Your task to perform on an android device: Open Google Chrome Image 0: 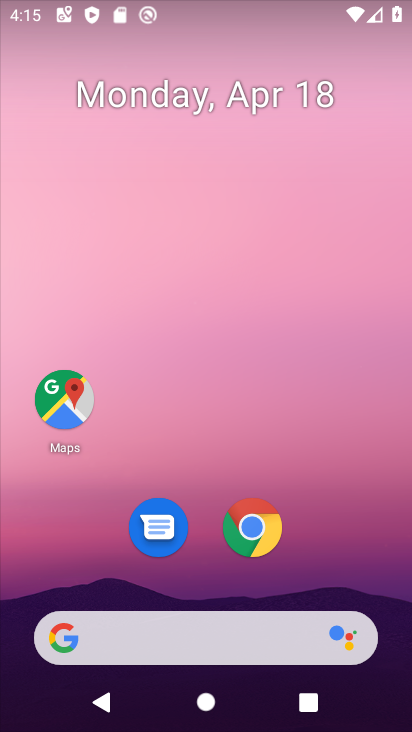
Step 0: click (253, 523)
Your task to perform on an android device: Open Google Chrome Image 1: 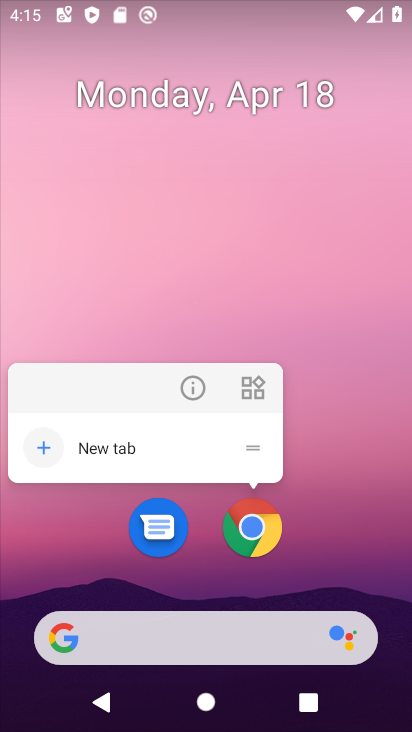
Step 1: click (248, 518)
Your task to perform on an android device: Open Google Chrome Image 2: 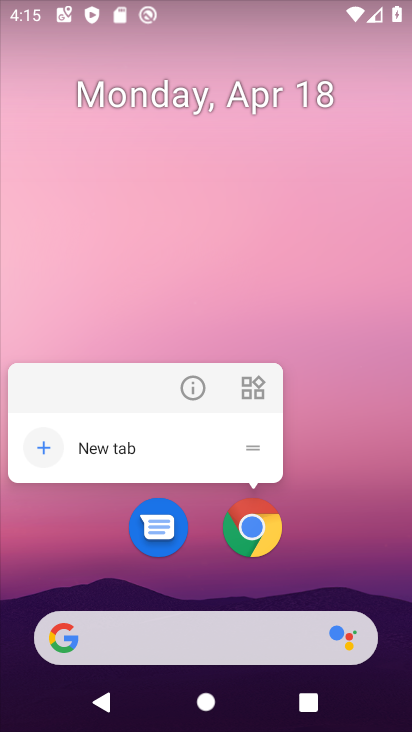
Step 2: click (248, 518)
Your task to perform on an android device: Open Google Chrome Image 3: 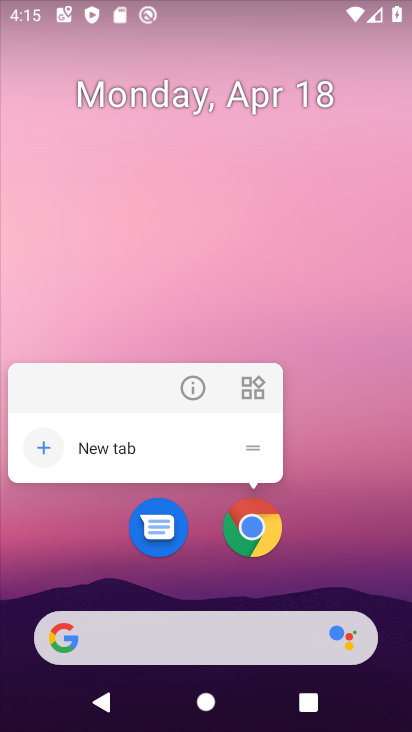
Step 3: click (249, 520)
Your task to perform on an android device: Open Google Chrome Image 4: 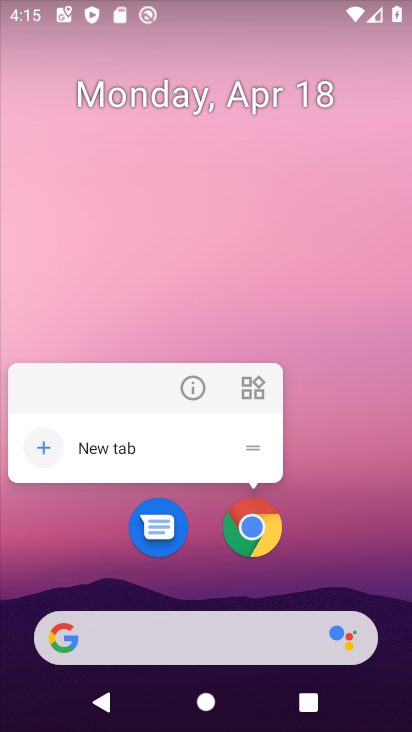
Step 4: click (256, 524)
Your task to perform on an android device: Open Google Chrome Image 5: 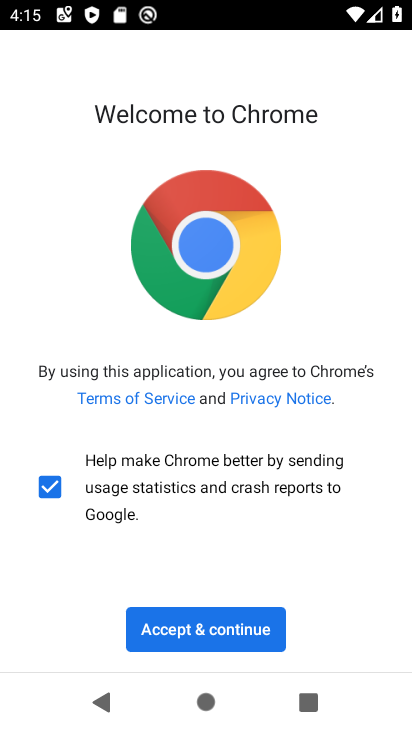
Step 5: click (197, 625)
Your task to perform on an android device: Open Google Chrome Image 6: 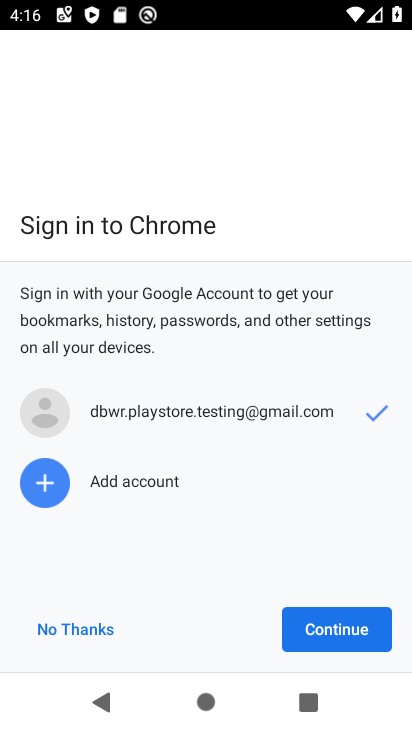
Step 6: click (336, 625)
Your task to perform on an android device: Open Google Chrome Image 7: 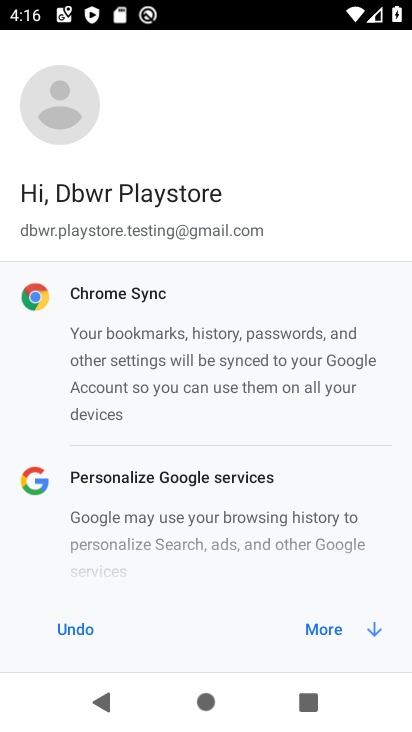
Step 7: click (336, 625)
Your task to perform on an android device: Open Google Chrome Image 8: 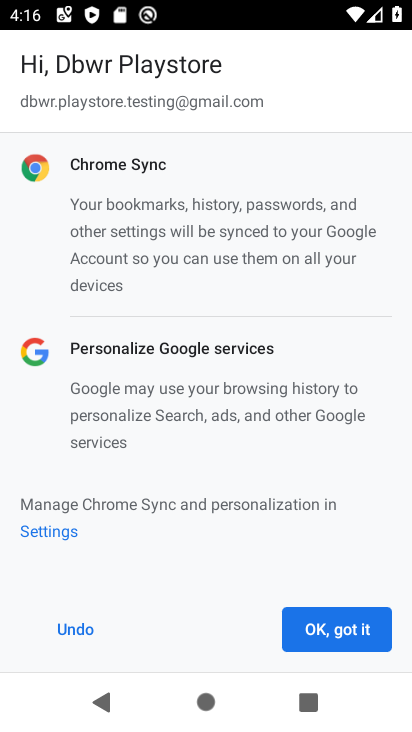
Step 8: click (336, 625)
Your task to perform on an android device: Open Google Chrome Image 9: 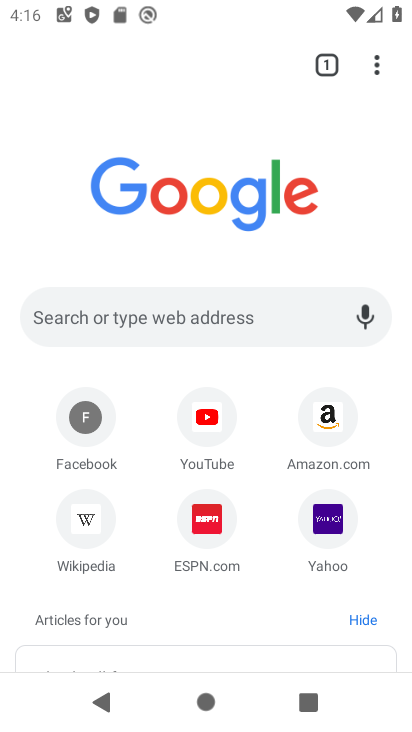
Step 9: task complete